Your task to perform on an android device: stop showing notifications on the lock screen Image 0: 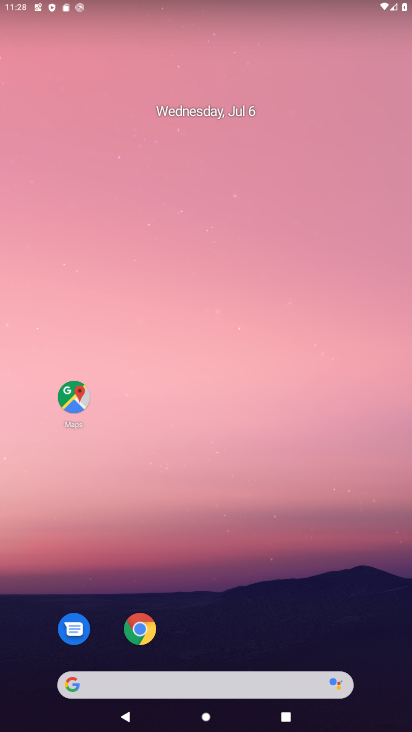
Step 0: drag from (240, 625) to (202, 149)
Your task to perform on an android device: stop showing notifications on the lock screen Image 1: 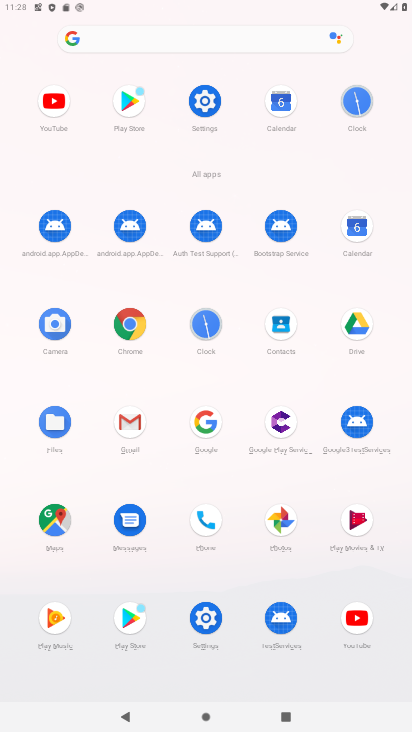
Step 1: click (208, 618)
Your task to perform on an android device: stop showing notifications on the lock screen Image 2: 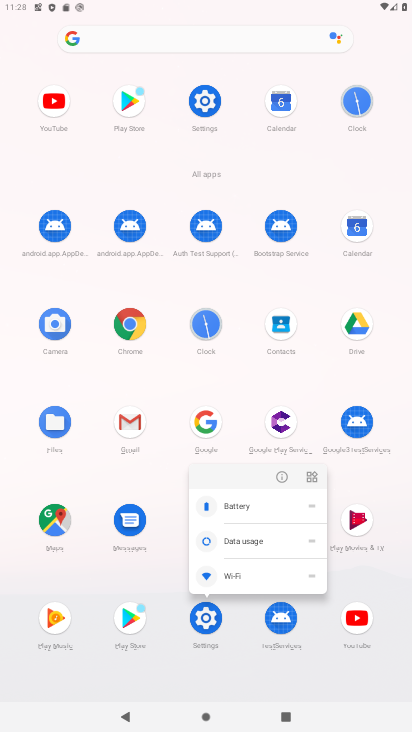
Step 2: click (208, 618)
Your task to perform on an android device: stop showing notifications on the lock screen Image 3: 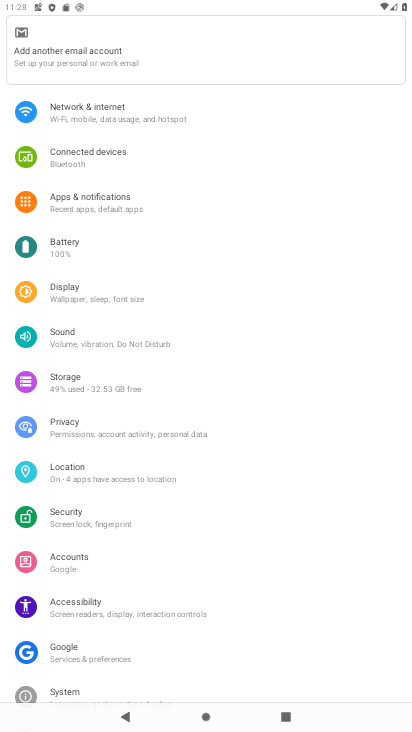
Step 3: click (106, 201)
Your task to perform on an android device: stop showing notifications on the lock screen Image 4: 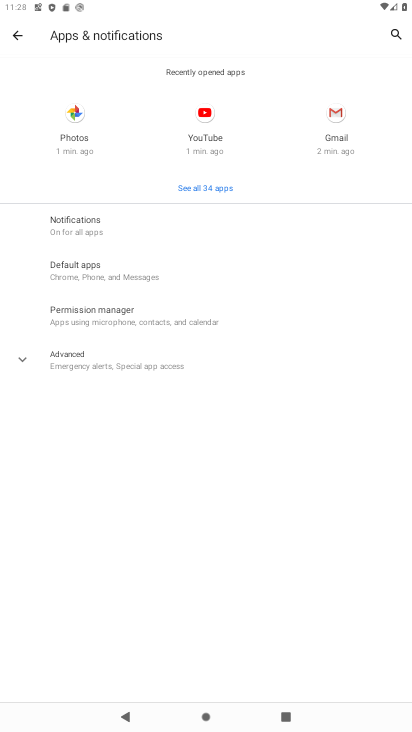
Step 4: click (90, 233)
Your task to perform on an android device: stop showing notifications on the lock screen Image 5: 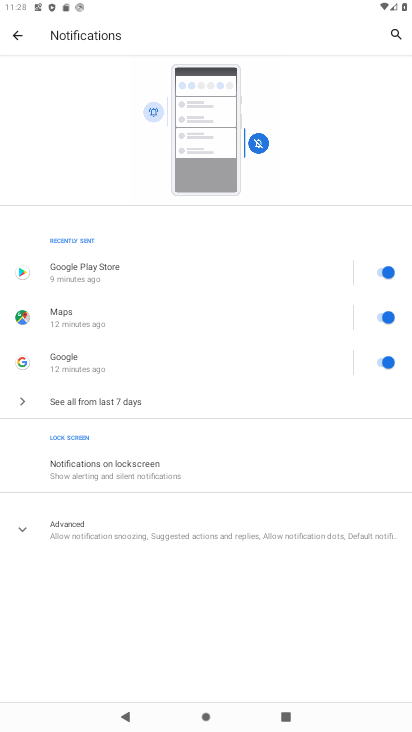
Step 5: click (99, 467)
Your task to perform on an android device: stop showing notifications on the lock screen Image 6: 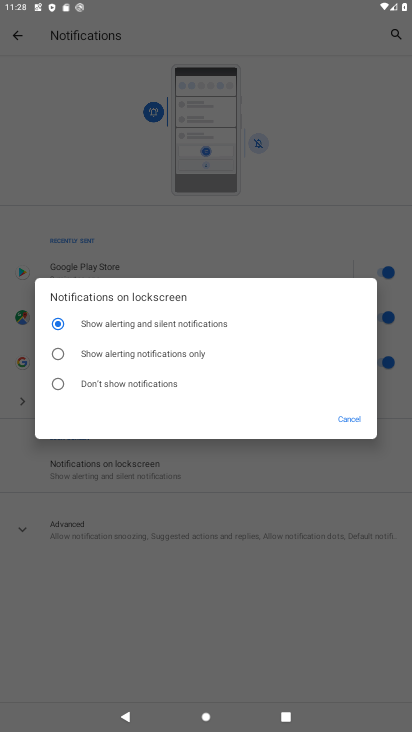
Step 6: click (57, 379)
Your task to perform on an android device: stop showing notifications on the lock screen Image 7: 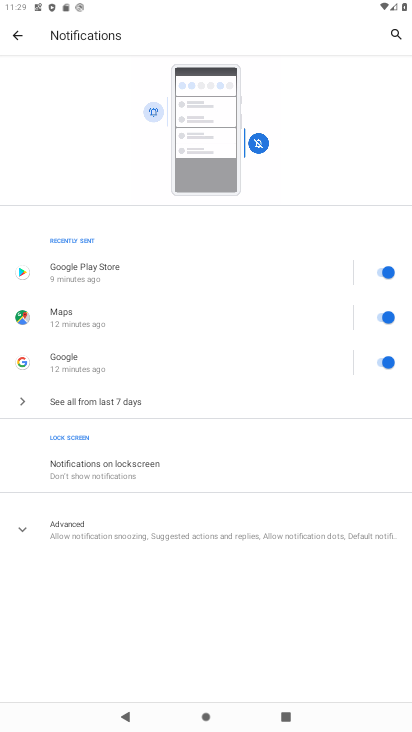
Step 7: task complete